Your task to perform on an android device: Open display settings Image 0: 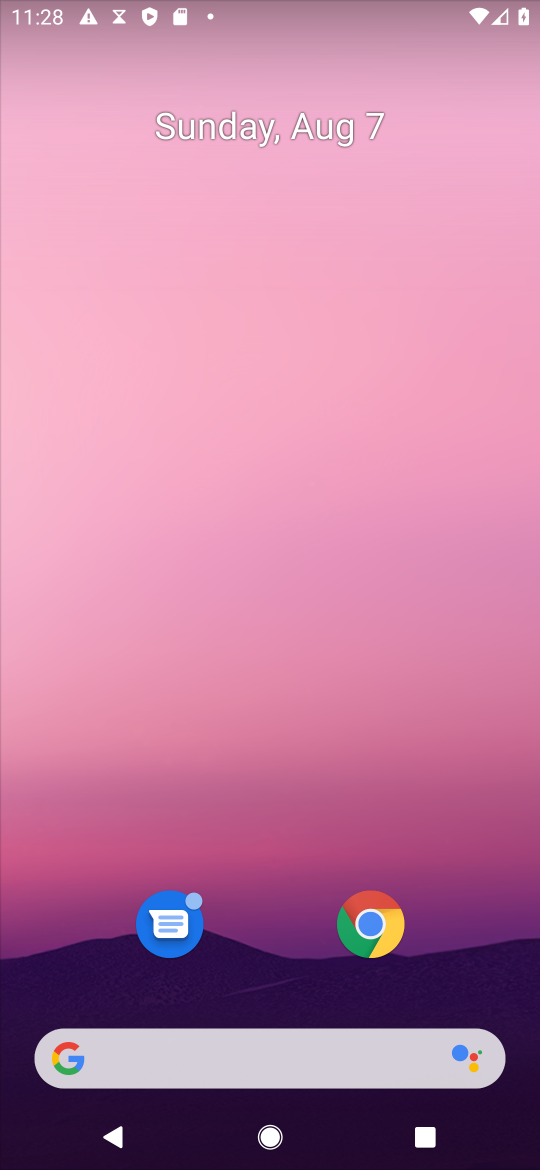
Step 0: drag from (241, 875) to (179, 385)
Your task to perform on an android device: Open display settings Image 1: 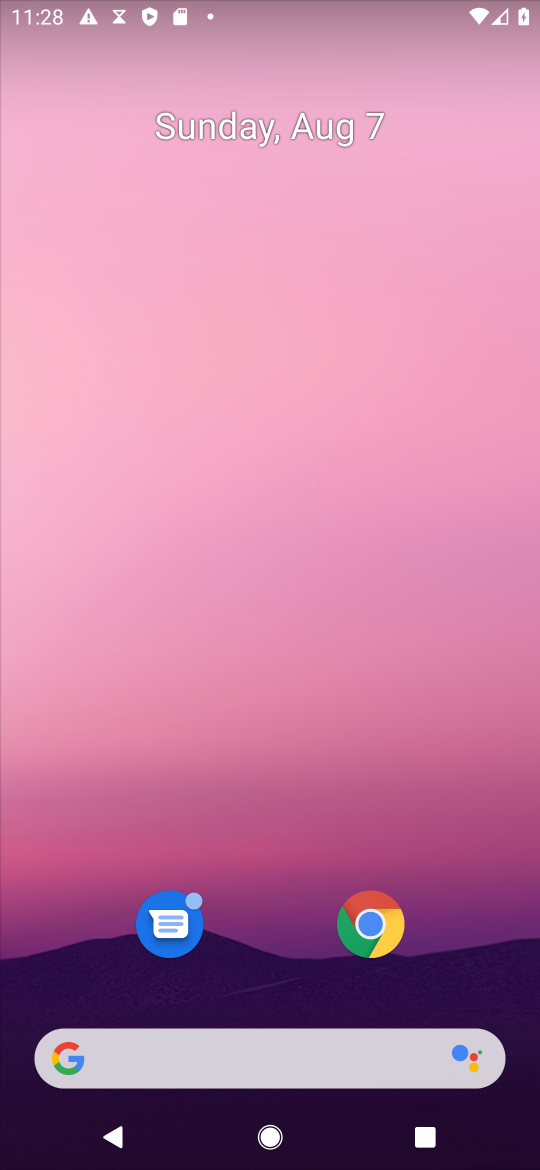
Step 1: drag from (255, 405) to (255, 307)
Your task to perform on an android device: Open display settings Image 2: 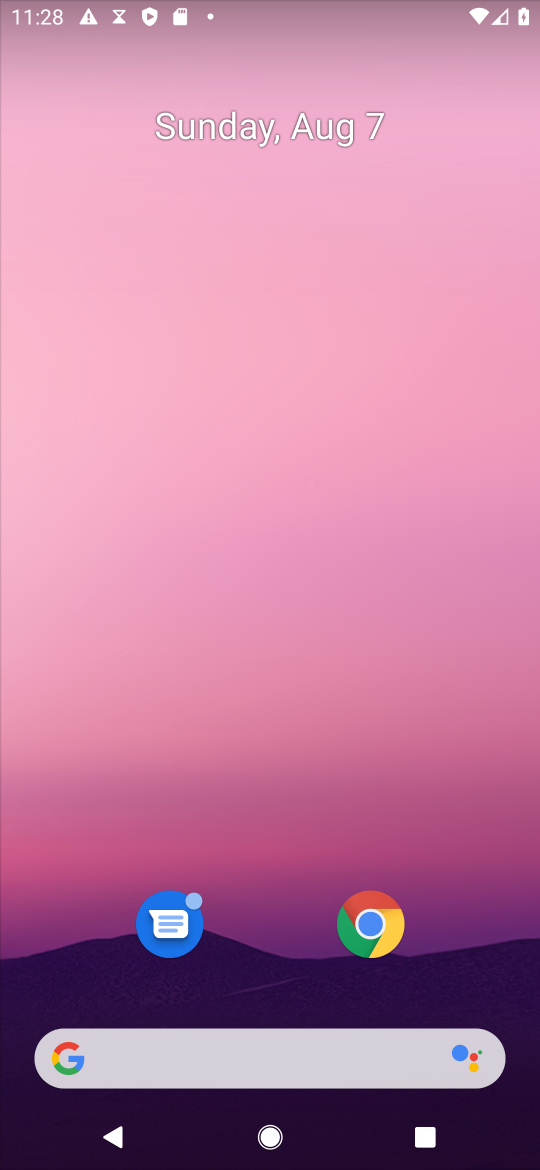
Step 2: drag from (241, 1022) to (224, 179)
Your task to perform on an android device: Open display settings Image 3: 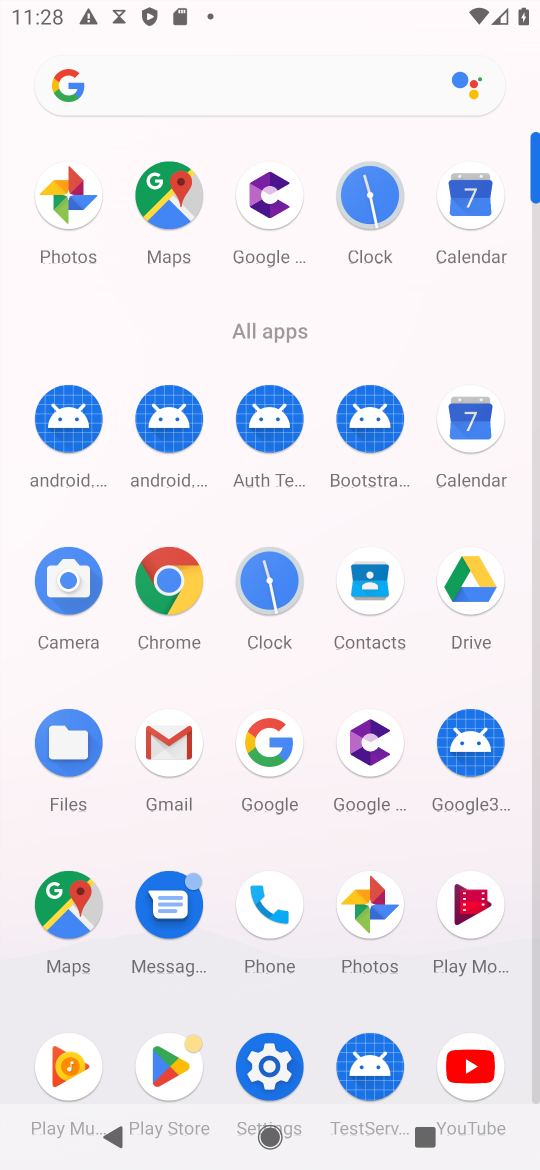
Step 3: click (262, 1045)
Your task to perform on an android device: Open display settings Image 4: 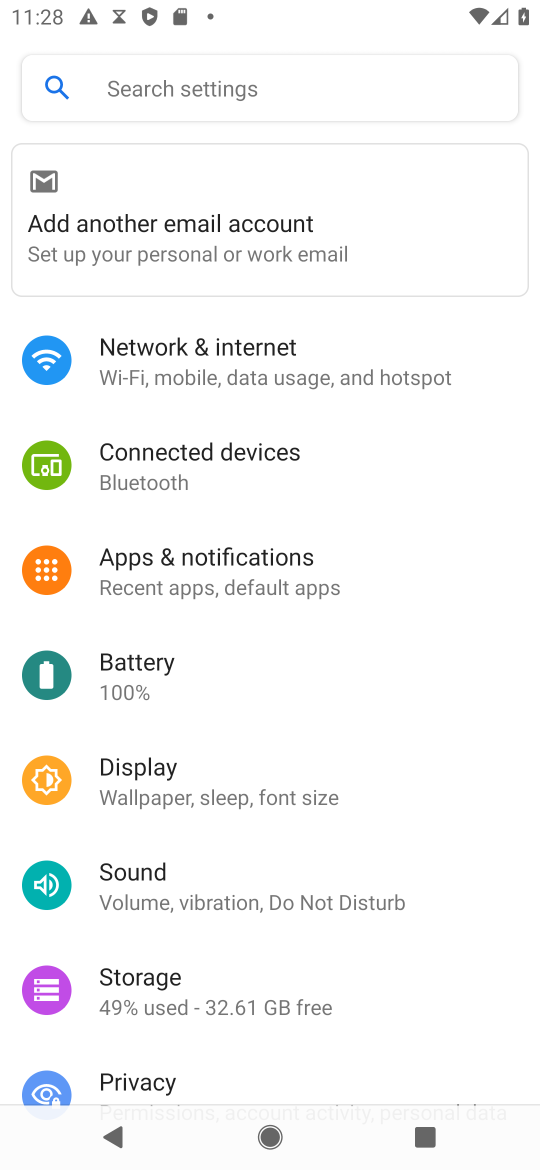
Step 4: click (156, 775)
Your task to perform on an android device: Open display settings Image 5: 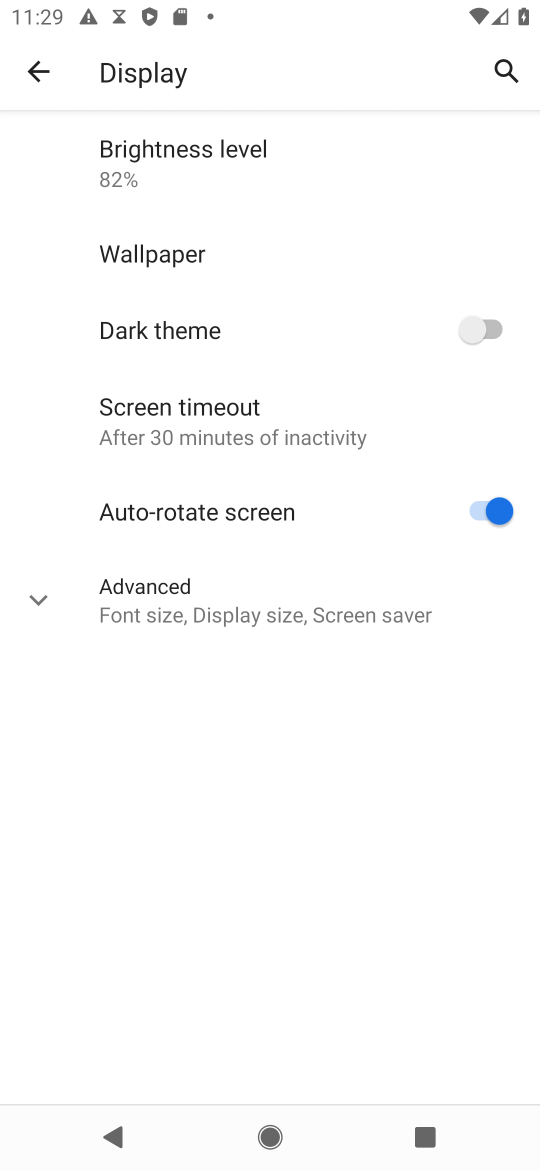
Step 5: click (99, 586)
Your task to perform on an android device: Open display settings Image 6: 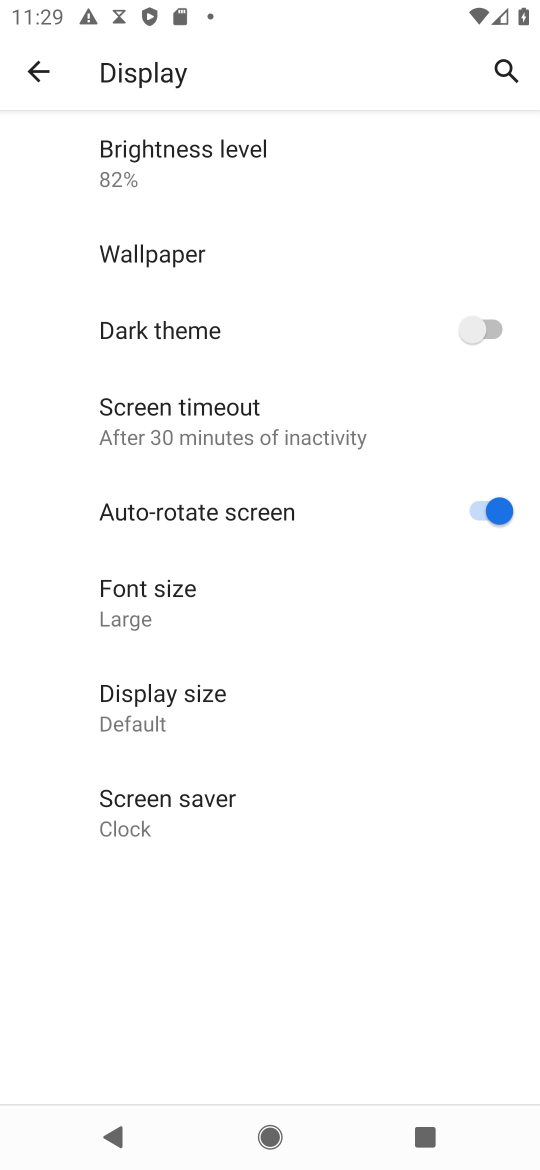
Step 6: task complete